Your task to perform on an android device: Open the stopwatch Image 0: 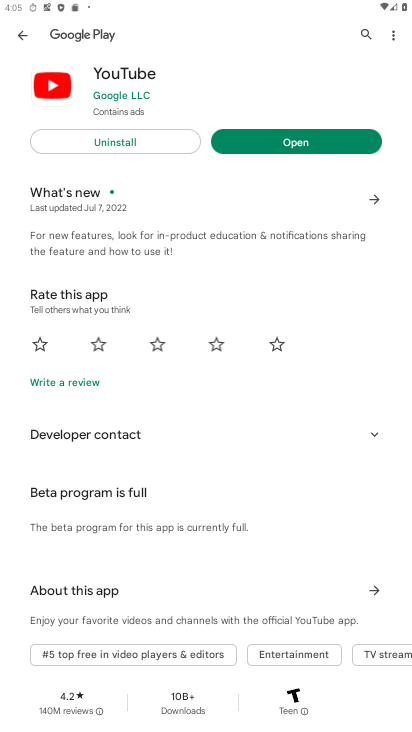
Step 0: press home button
Your task to perform on an android device: Open the stopwatch Image 1: 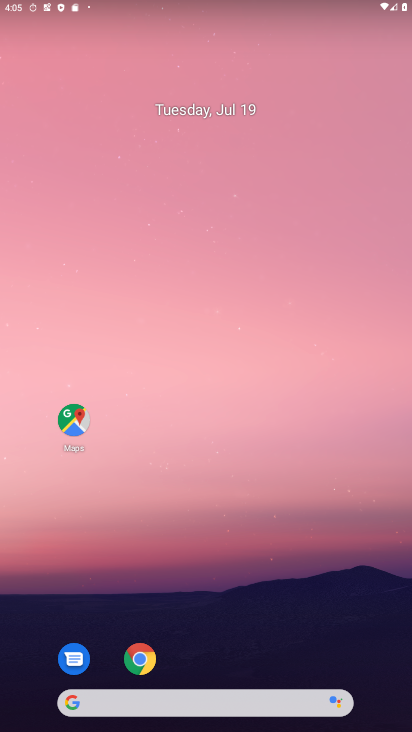
Step 1: drag from (299, 634) to (334, 73)
Your task to perform on an android device: Open the stopwatch Image 2: 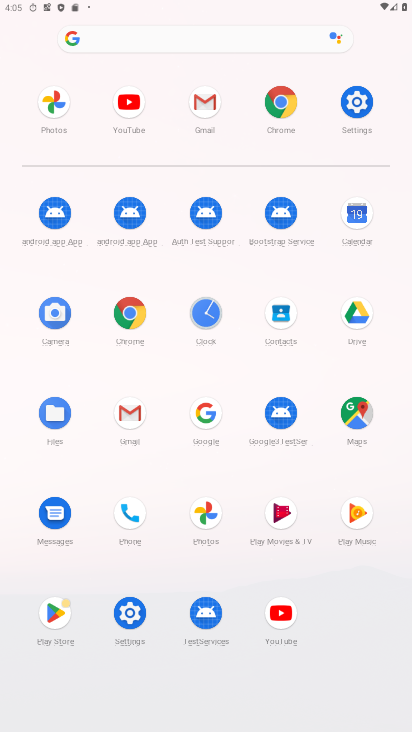
Step 2: click (199, 321)
Your task to perform on an android device: Open the stopwatch Image 3: 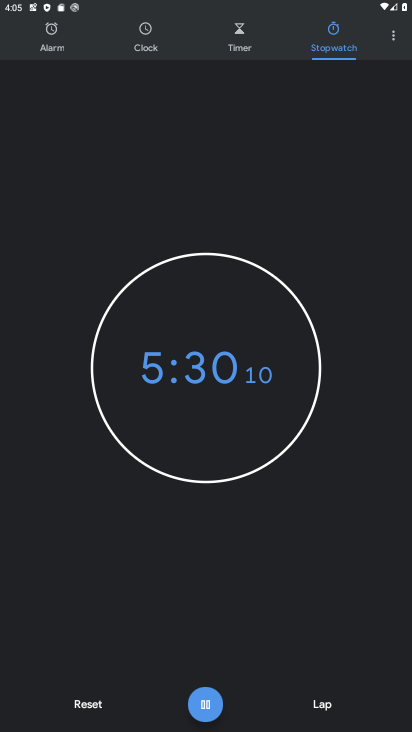
Step 3: task complete